Your task to perform on an android device: Search for vegetarian restaurants on Maps Image 0: 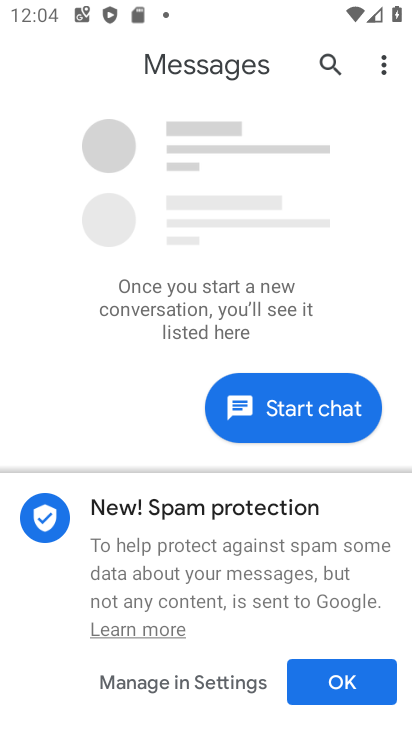
Step 0: press home button
Your task to perform on an android device: Search for vegetarian restaurants on Maps Image 1: 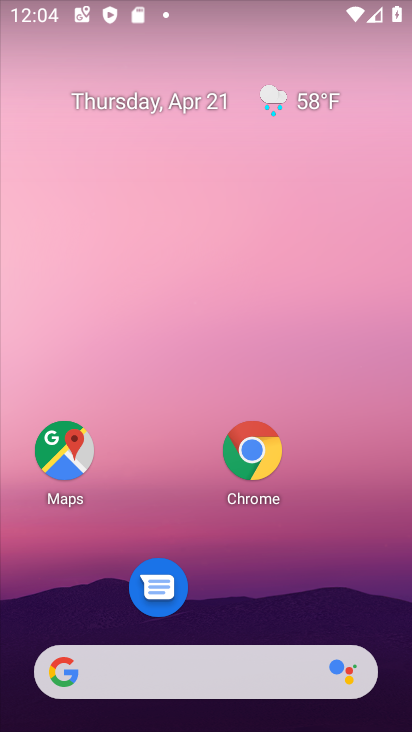
Step 1: click (79, 455)
Your task to perform on an android device: Search for vegetarian restaurants on Maps Image 2: 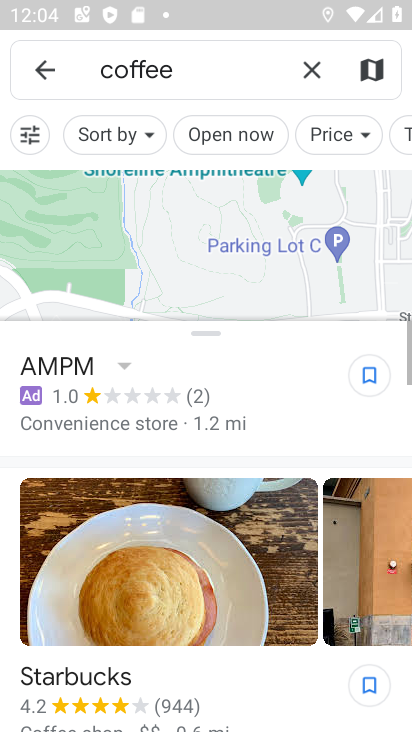
Step 2: click (311, 74)
Your task to perform on an android device: Search for vegetarian restaurants on Maps Image 3: 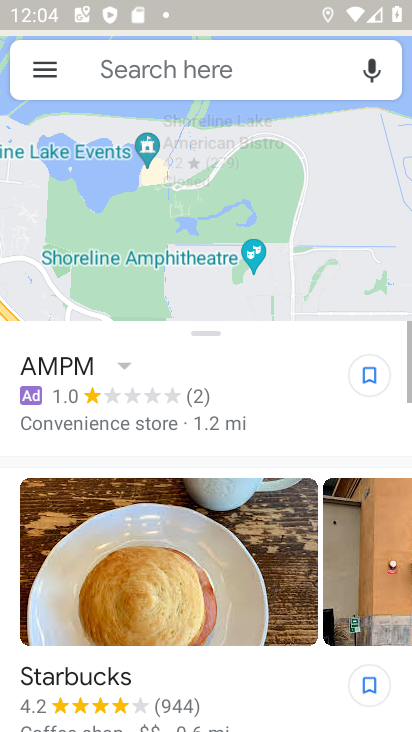
Step 3: click (311, 74)
Your task to perform on an android device: Search for vegetarian restaurants on Maps Image 4: 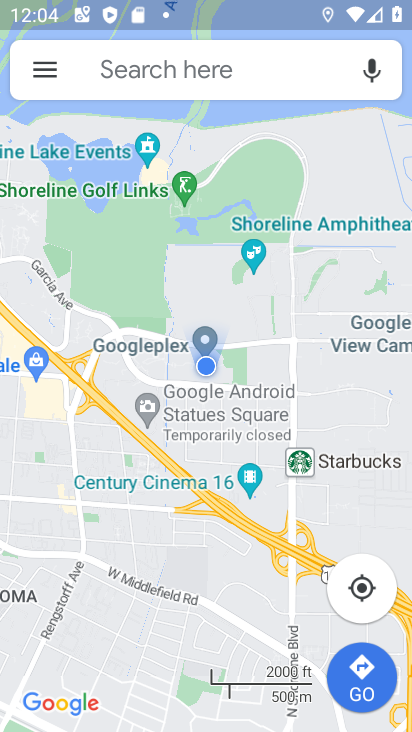
Step 4: click (209, 75)
Your task to perform on an android device: Search for vegetarian restaurants on Maps Image 5: 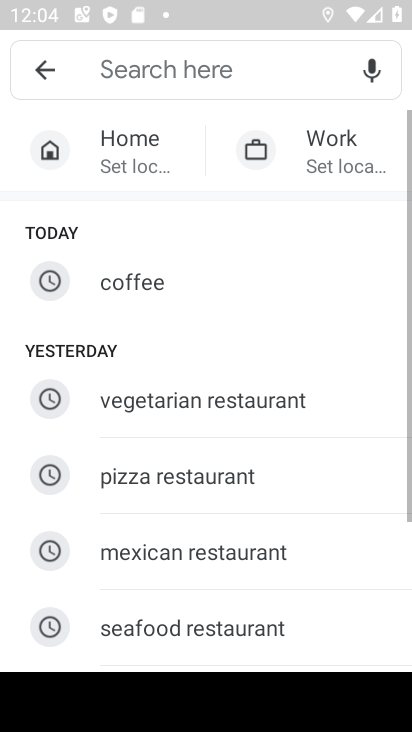
Step 5: click (222, 432)
Your task to perform on an android device: Search for vegetarian restaurants on Maps Image 6: 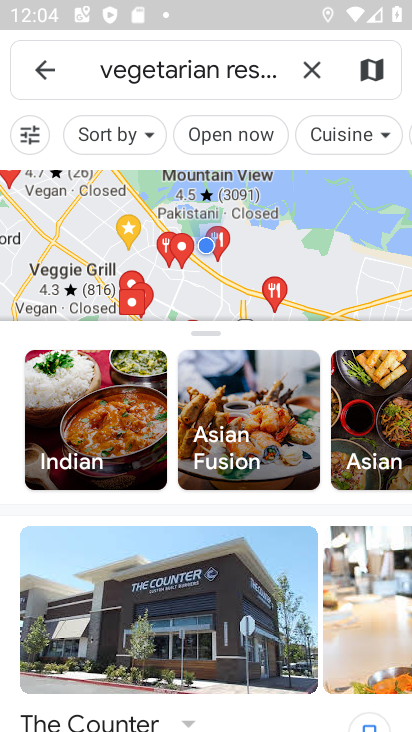
Step 6: task complete